Your task to perform on an android device: Search for usb-c on walmart.com, select the first entry, and add it to the cart. Image 0: 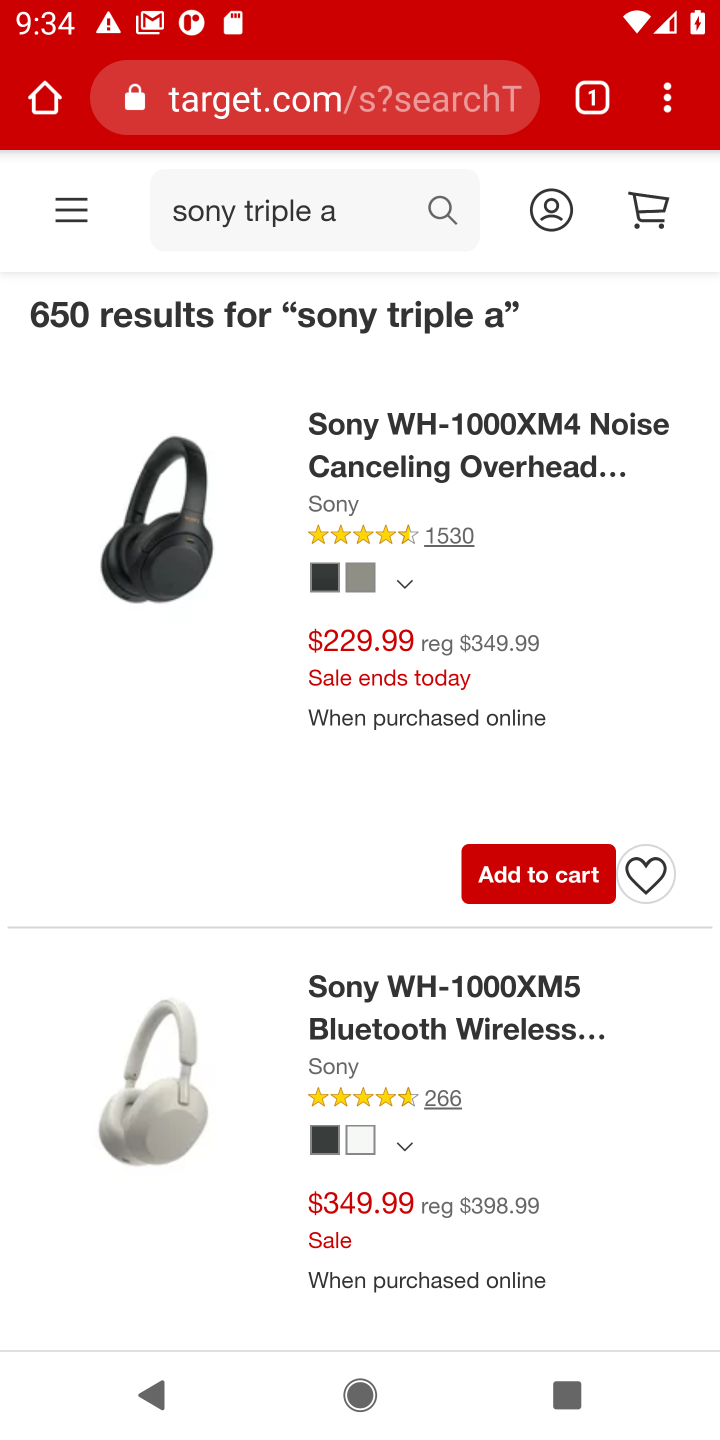
Step 0: click (292, 91)
Your task to perform on an android device: Search for usb-c on walmart.com, select the first entry, and add it to the cart. Image 1: 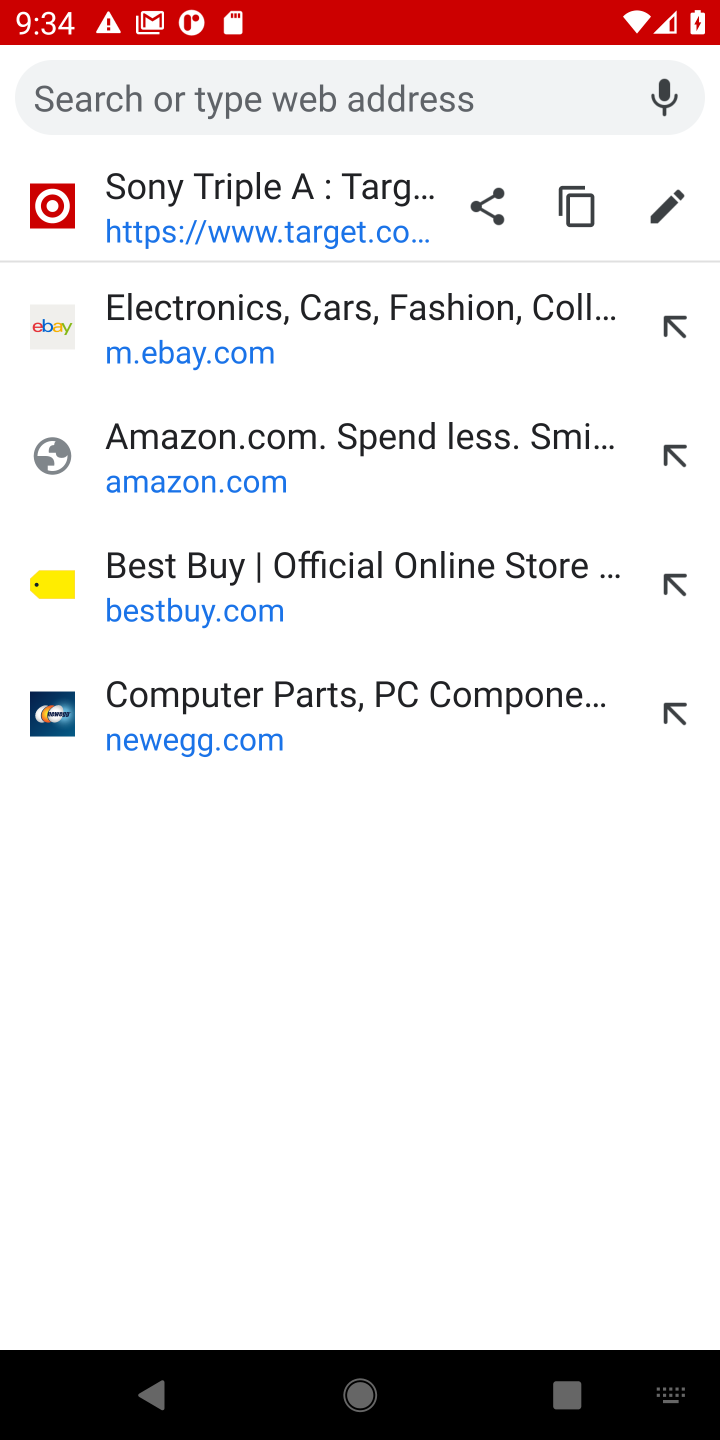
Step 1: type "walmart.com"
Your task to perform on an android device: Search for usb-c on walmart.com, select the first entry, and add it to the cart. Image 2: 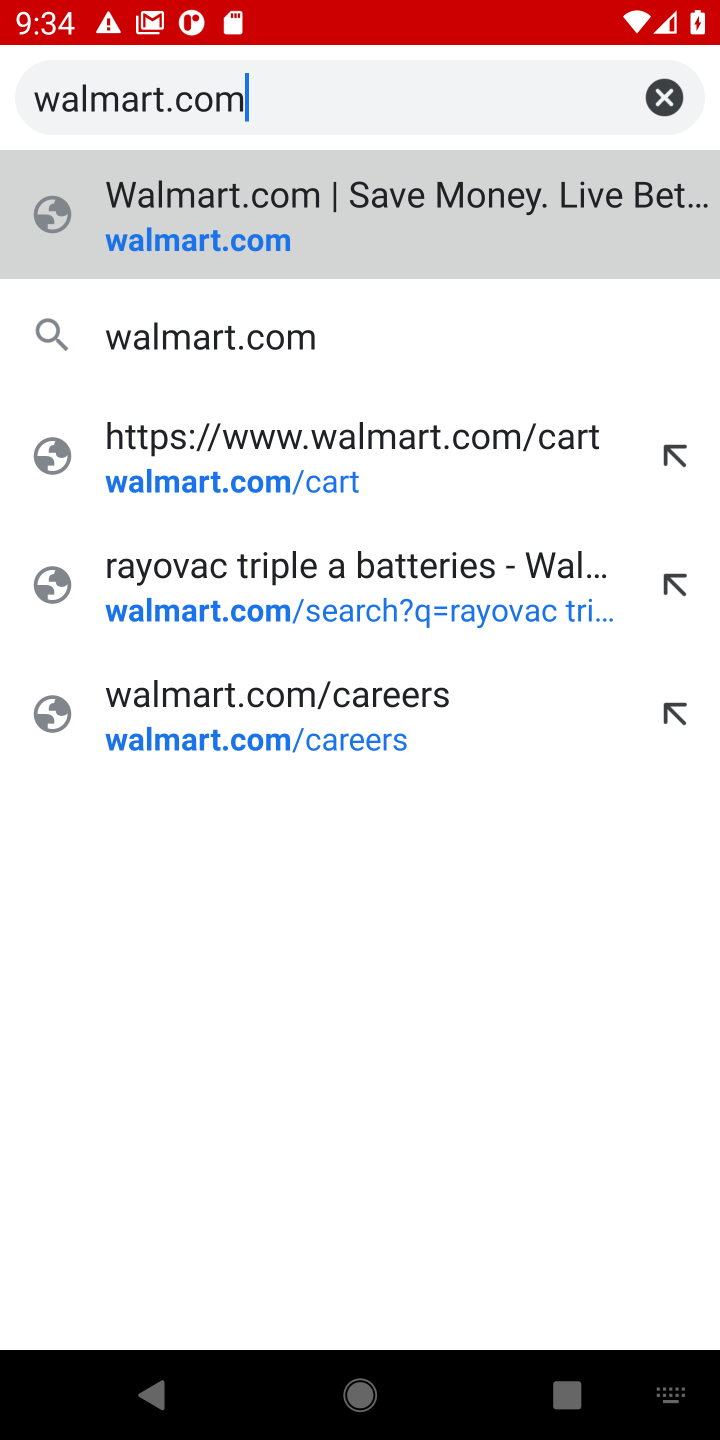
Step 2: click (142, 245)
Your task to perform on an android device: Search for usb-c on walmart.com, select the first entry, and add it to the cart. Image 3: 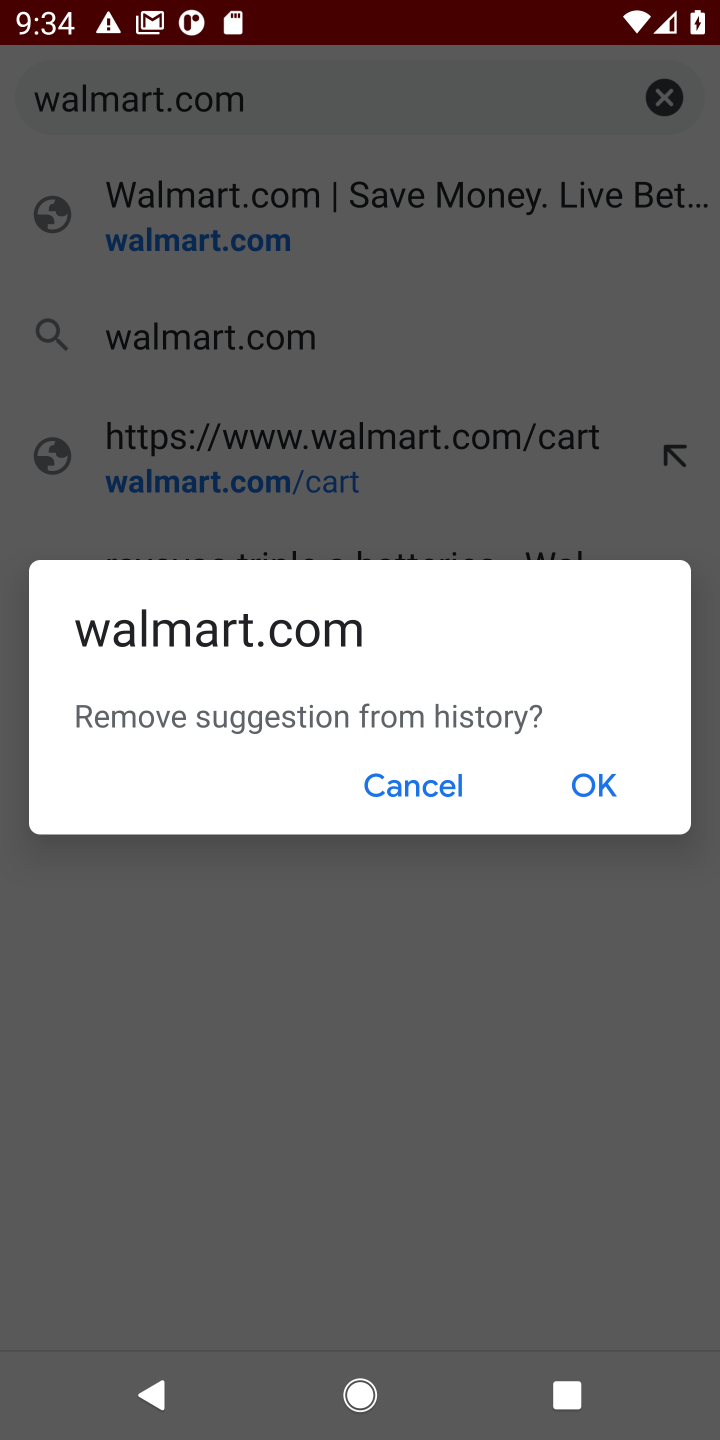
Step 3: click (416, 797)
Your task to perform on an android device: Search for usb-c on walmart.com, select the first entry, and add it to the cart. Image 4: 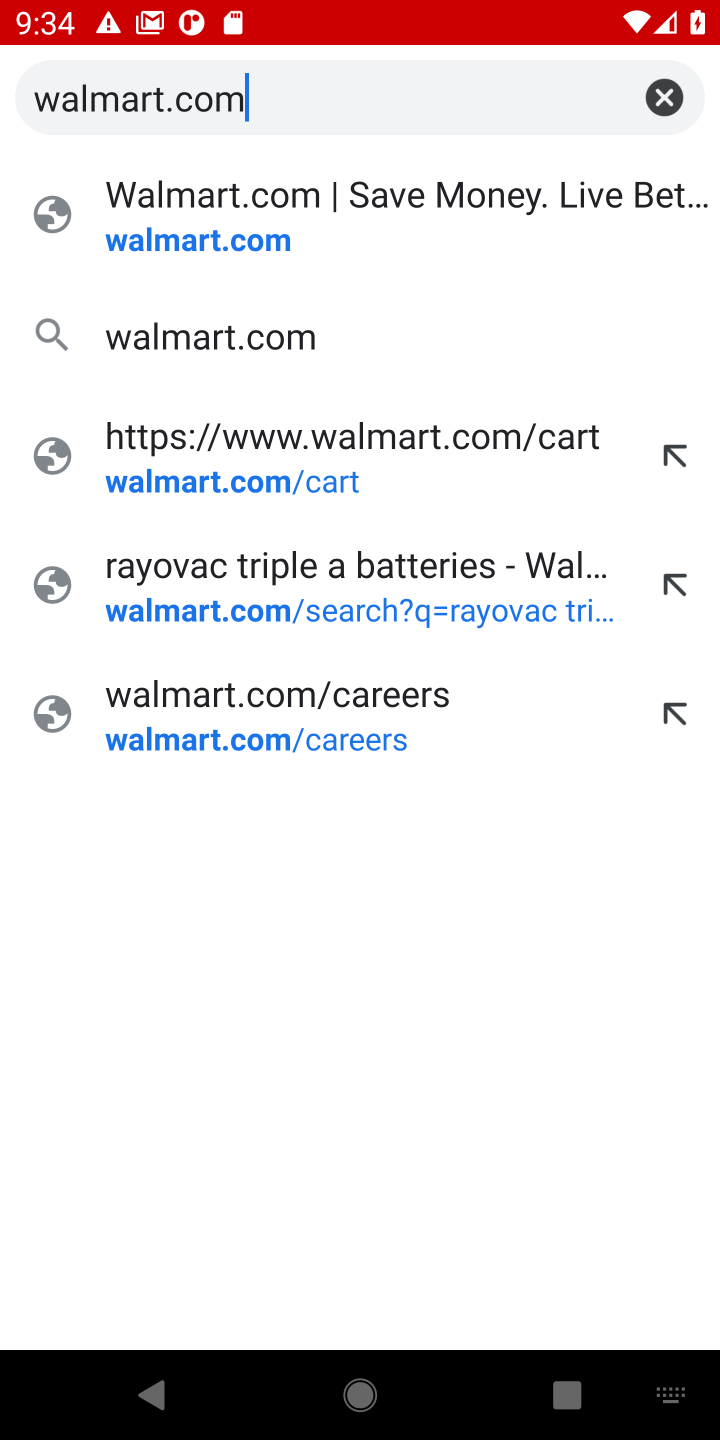
Step 4: click (192, 247)
Your task to perform on an android device: Search for usb-c on walmart.com, select the first entry, and add it to the cart. Image 5: 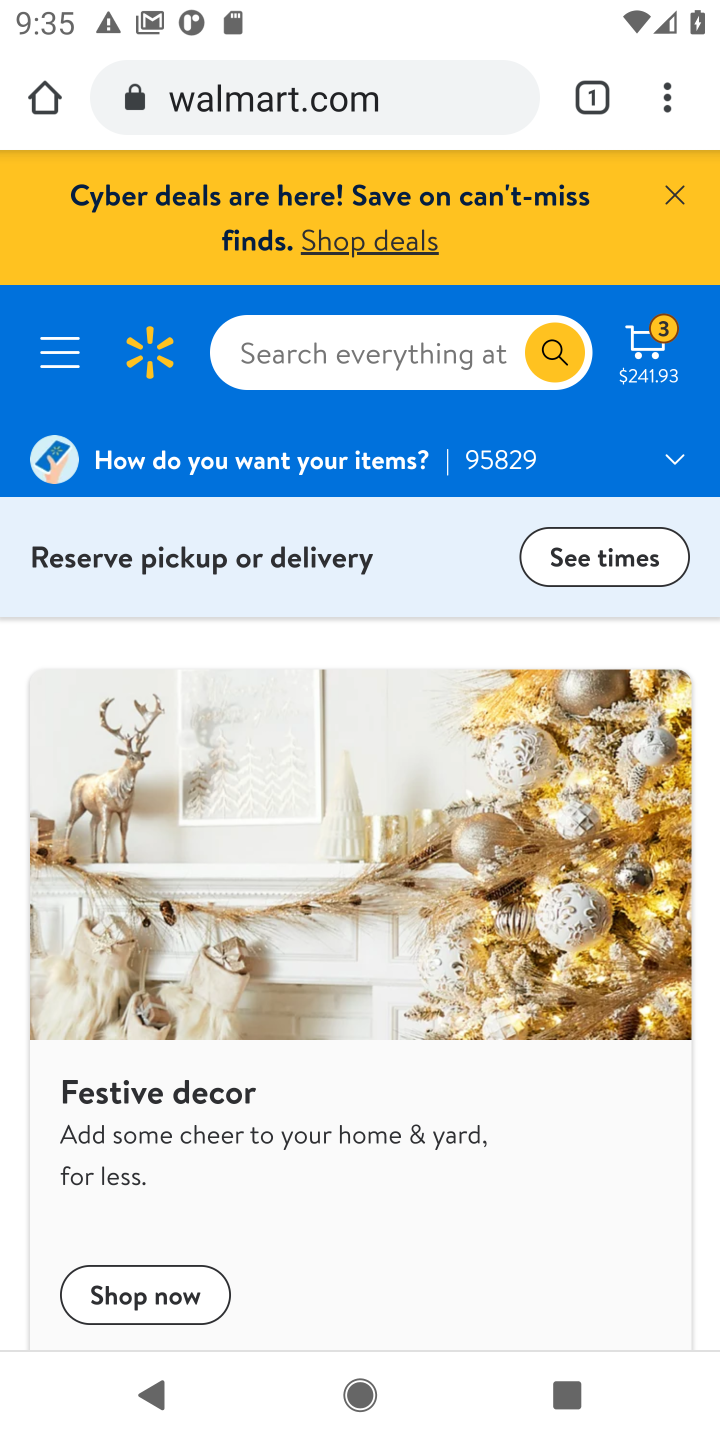
Step 5: click (297, 365)
Your task to perform on an android device: Search for usb-c on walmart.com, select the first entry, and add it to the cart. Image 6: 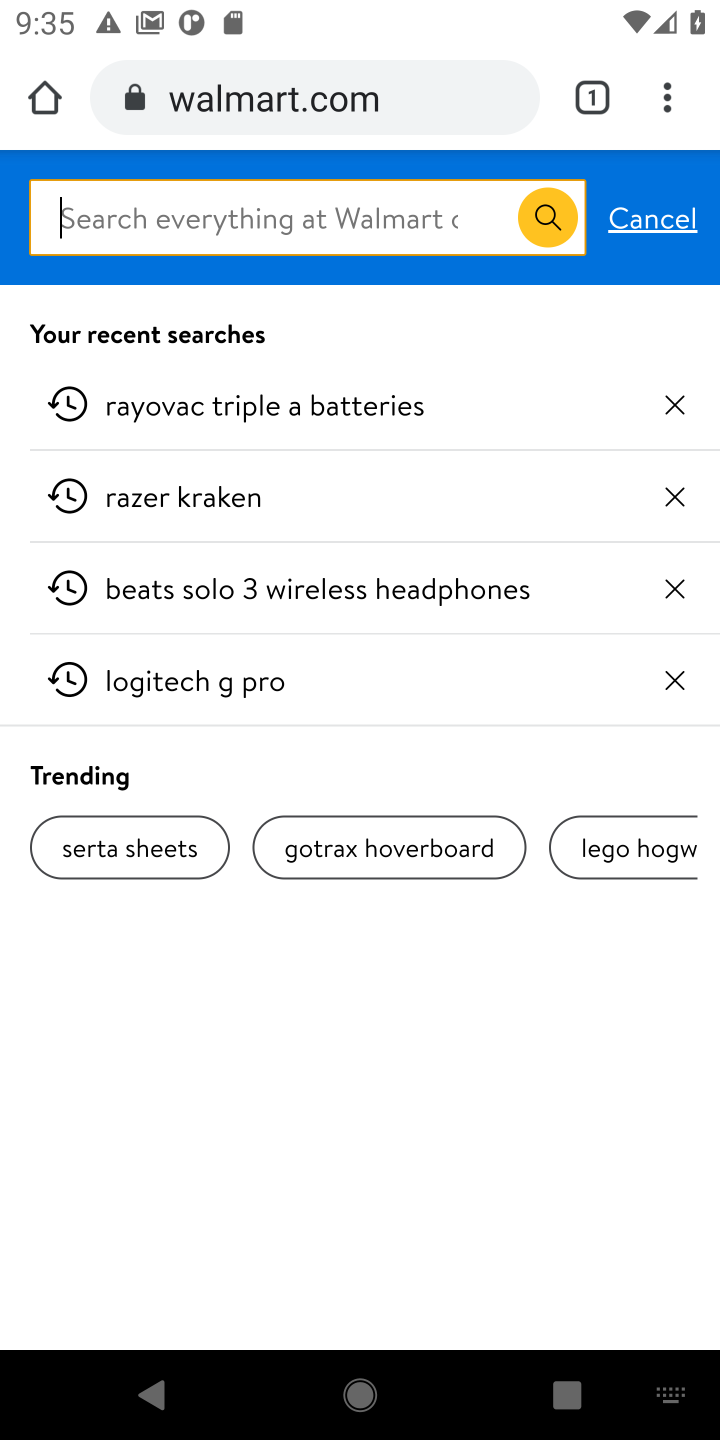
Step 6: type " usb-c"
Your task to perform on an android device: Search for usb-c on walmart.com, select the first entry, and add it to the cart. Image 7: 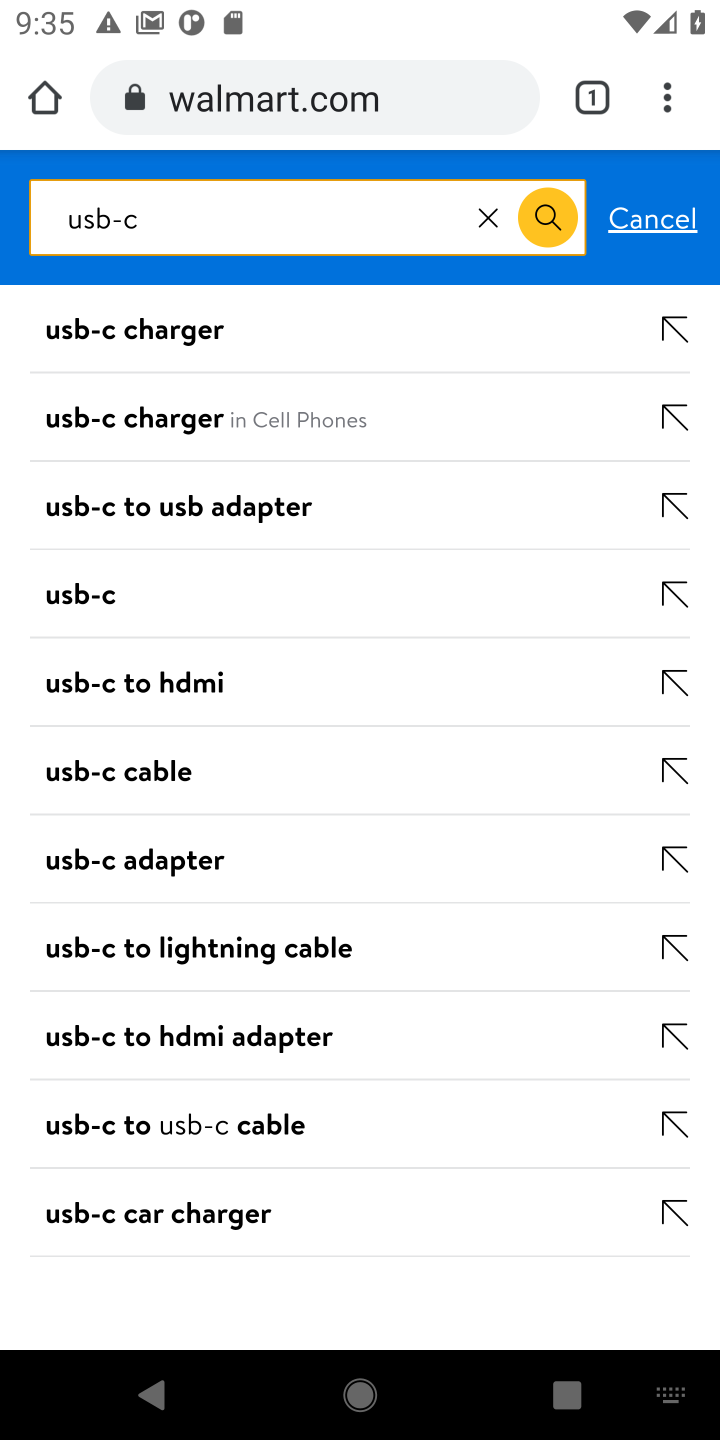
Step 7: click (64, 606)
Your task to perform on an android device: Search for usb-c on walmart.com, select the first entry, and add it to the cart. Image 8: 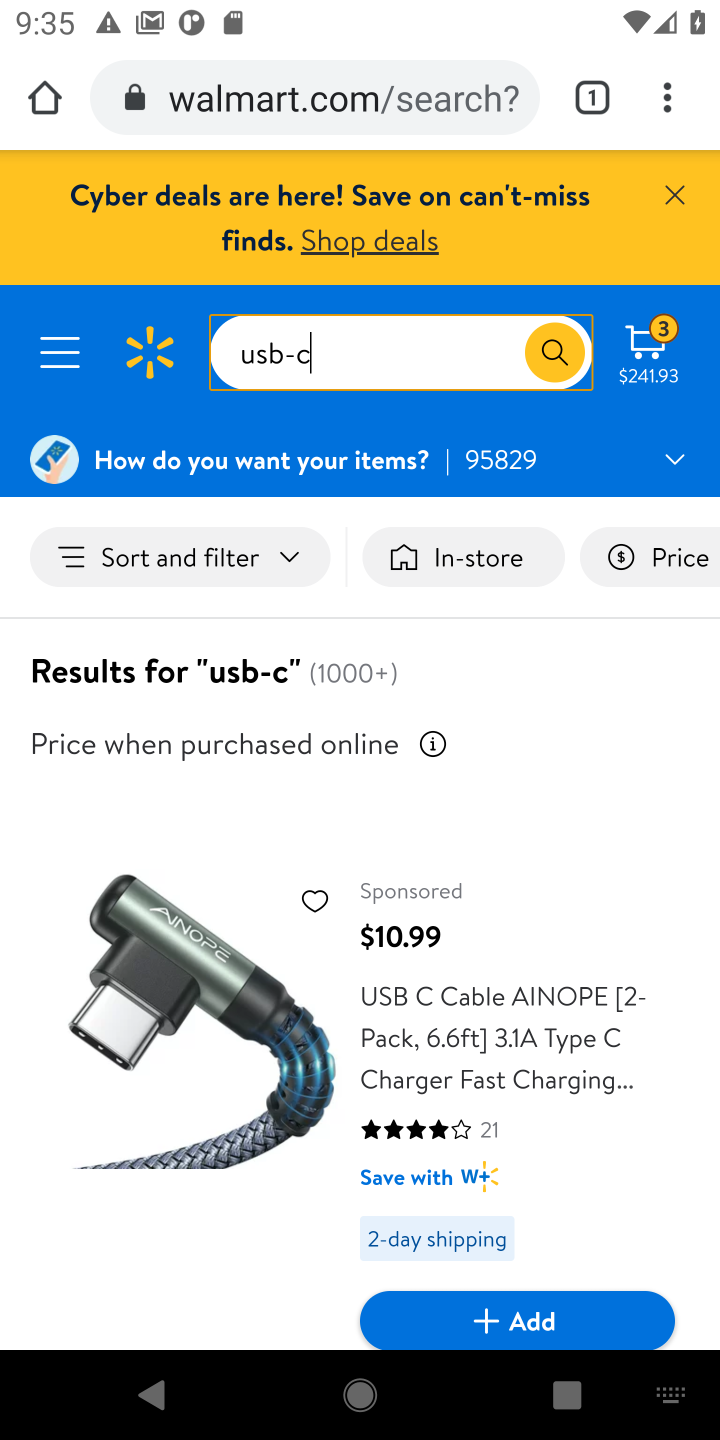
Step 8: click (533, 1322)
Your task to perform on an android device: Search for usb-c on walmart.com, select the first entry, and add it to the cart. Image 9: 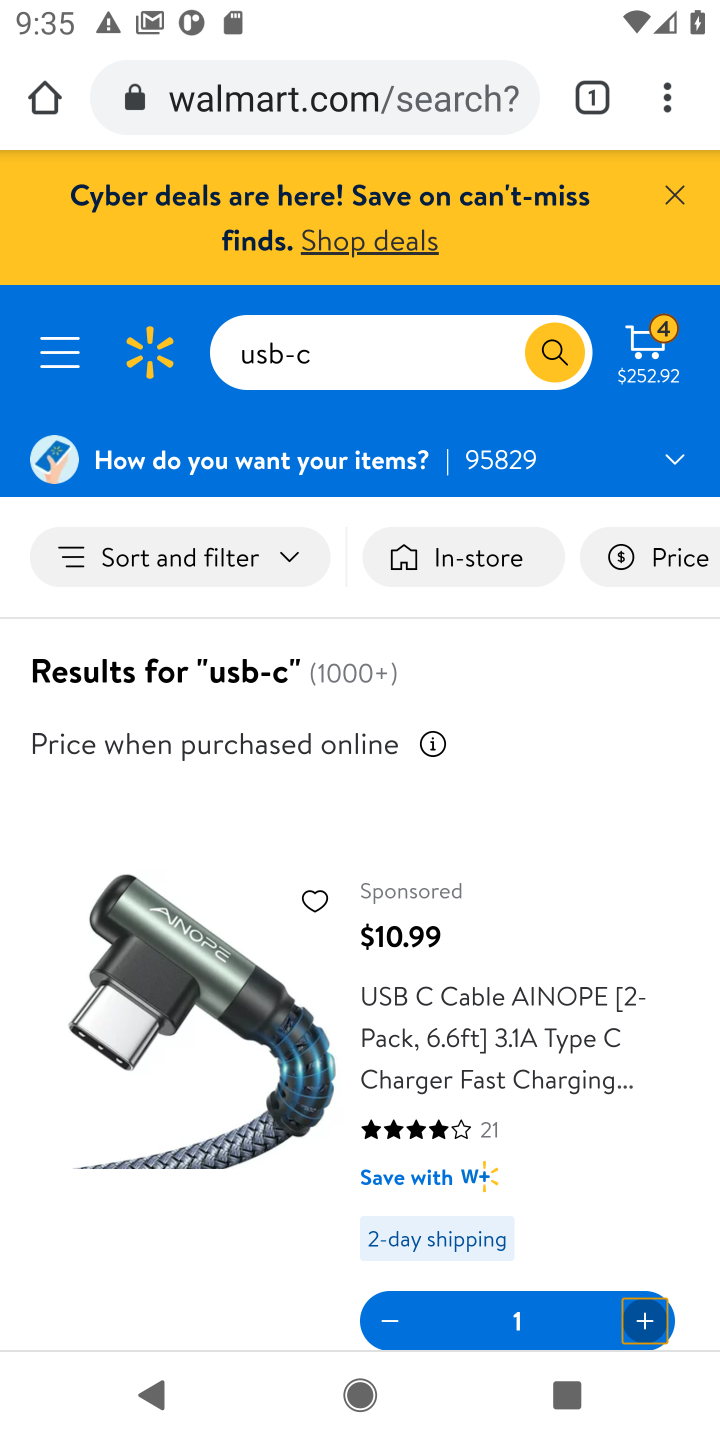
Step 9: task complete